Your task to perform on an android device: View the shopping cart on walmart. Search for razer blackwidow on walmart, select the first entry, and add it to the cart. Image 0: 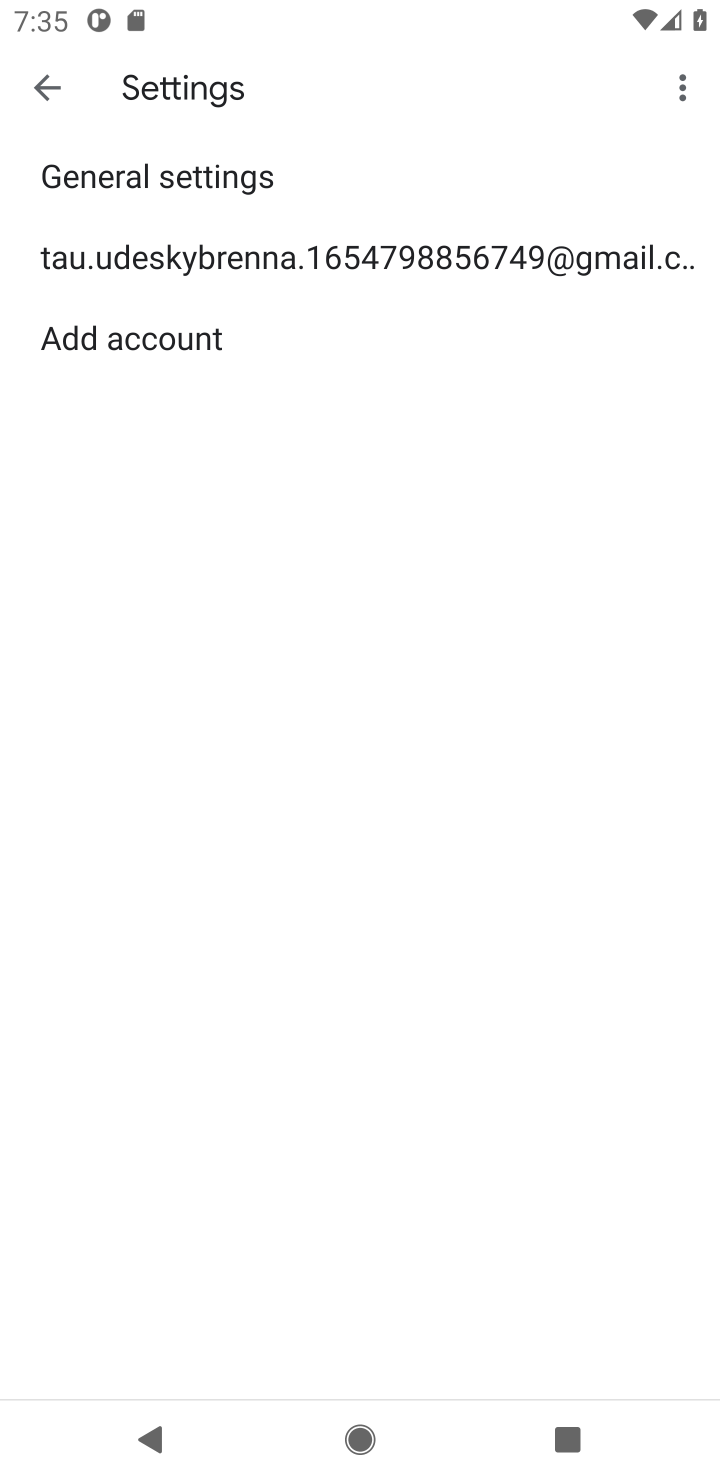
Step 0: press home button
Your task to perform on an android device: View the shopping cart on walmart. Search for razer blackwidow on walmart, select the first entry, and add it to the cart. Image 1: 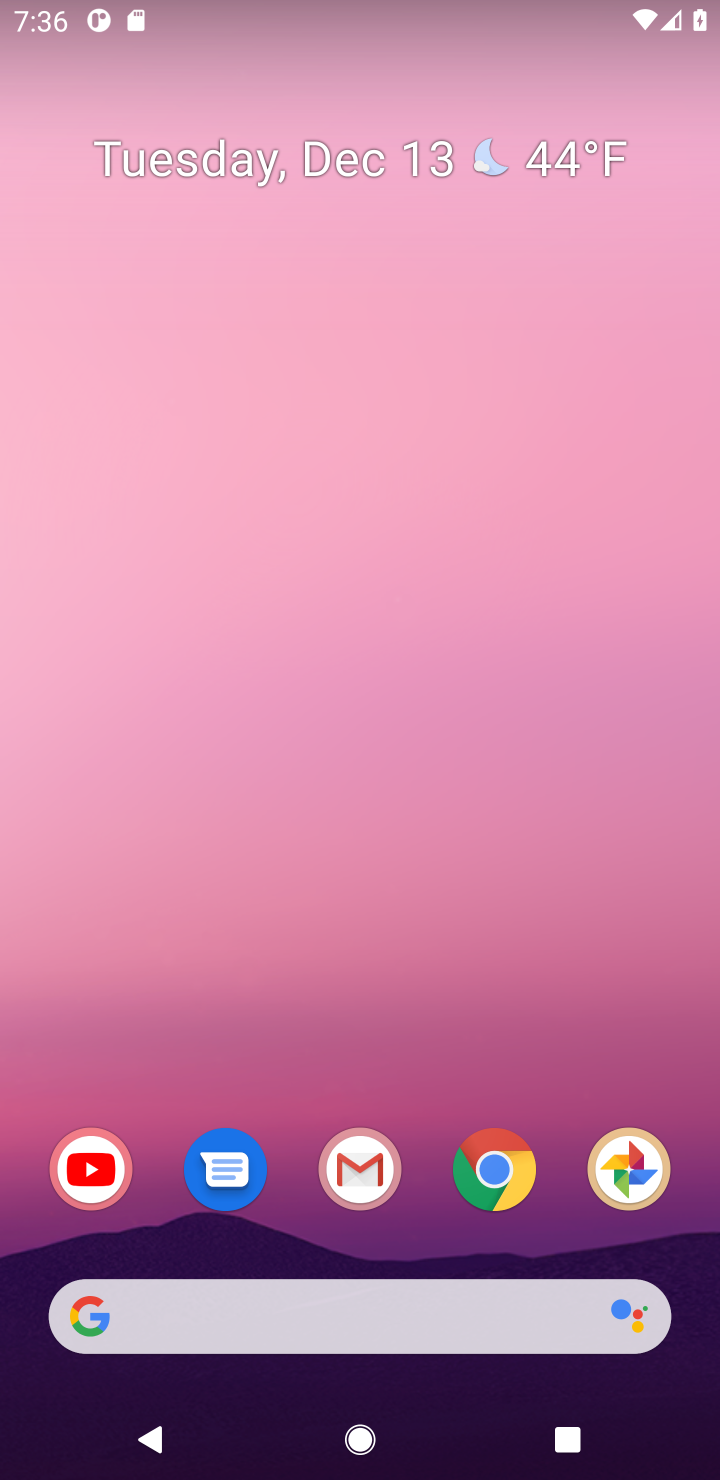
Step 1: click (478, 1200)
Your task to perform on an android device: View the shopping cart on walmart. Search for razer blackwidow on walmart, select the first entry, and add it to the cart. Image 2: 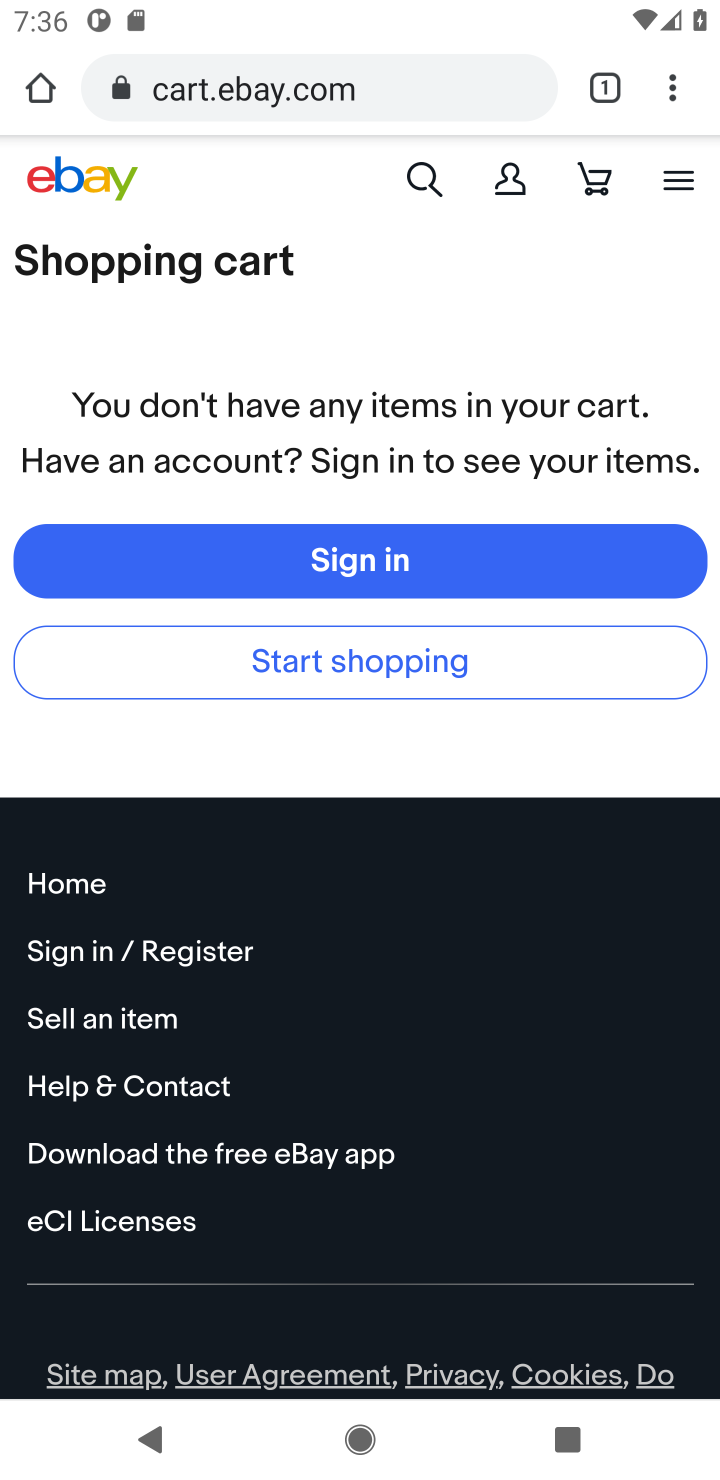
Step 2: click (370, 100)
Your task to perform on an android device: View the shopping cart on walmart. Search for razer blackwidow on walmart, select the first entry, and add it to the cart. Image 3: 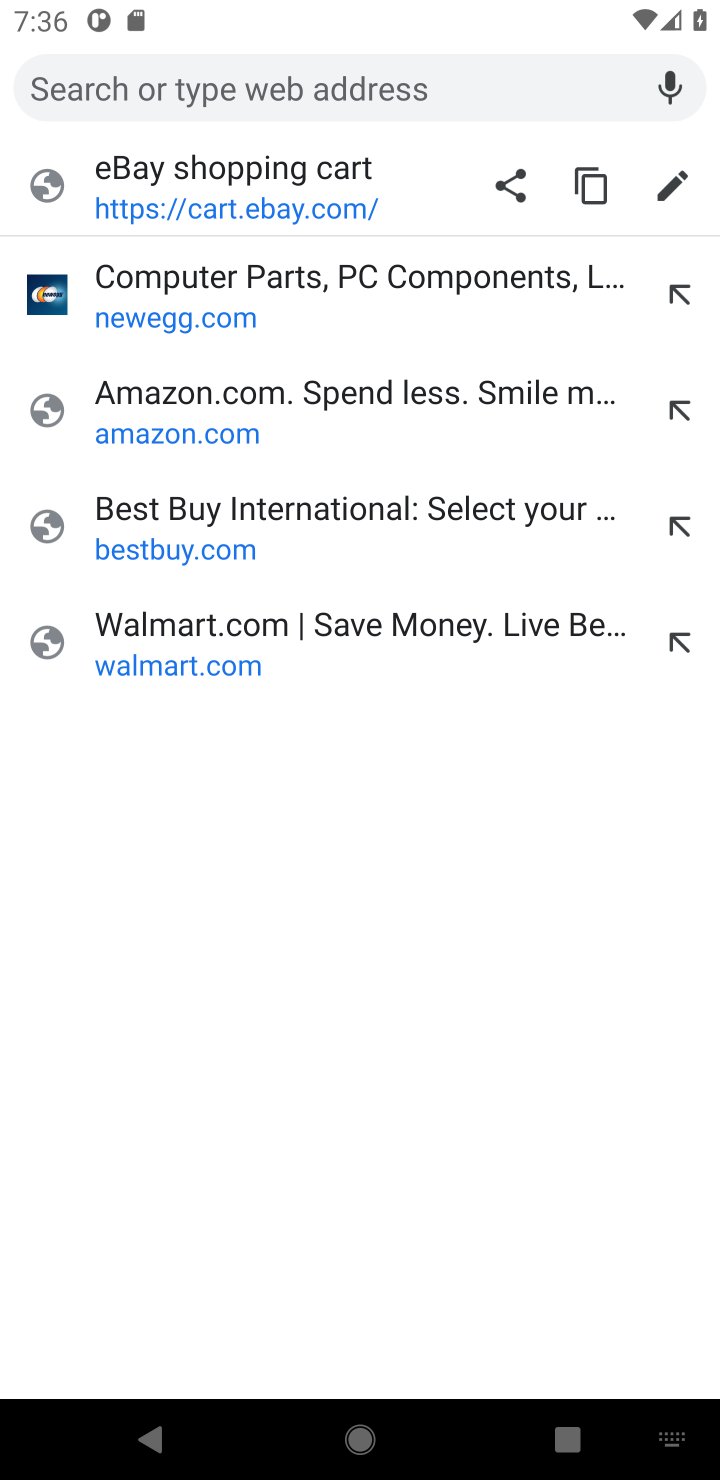
Step 3: type "walmart"
Your task to perform on an android device: View the shopping cart on walmart. Search for razer blackwidow on walmart, select the first entry, and add it to the cart. Image 4: 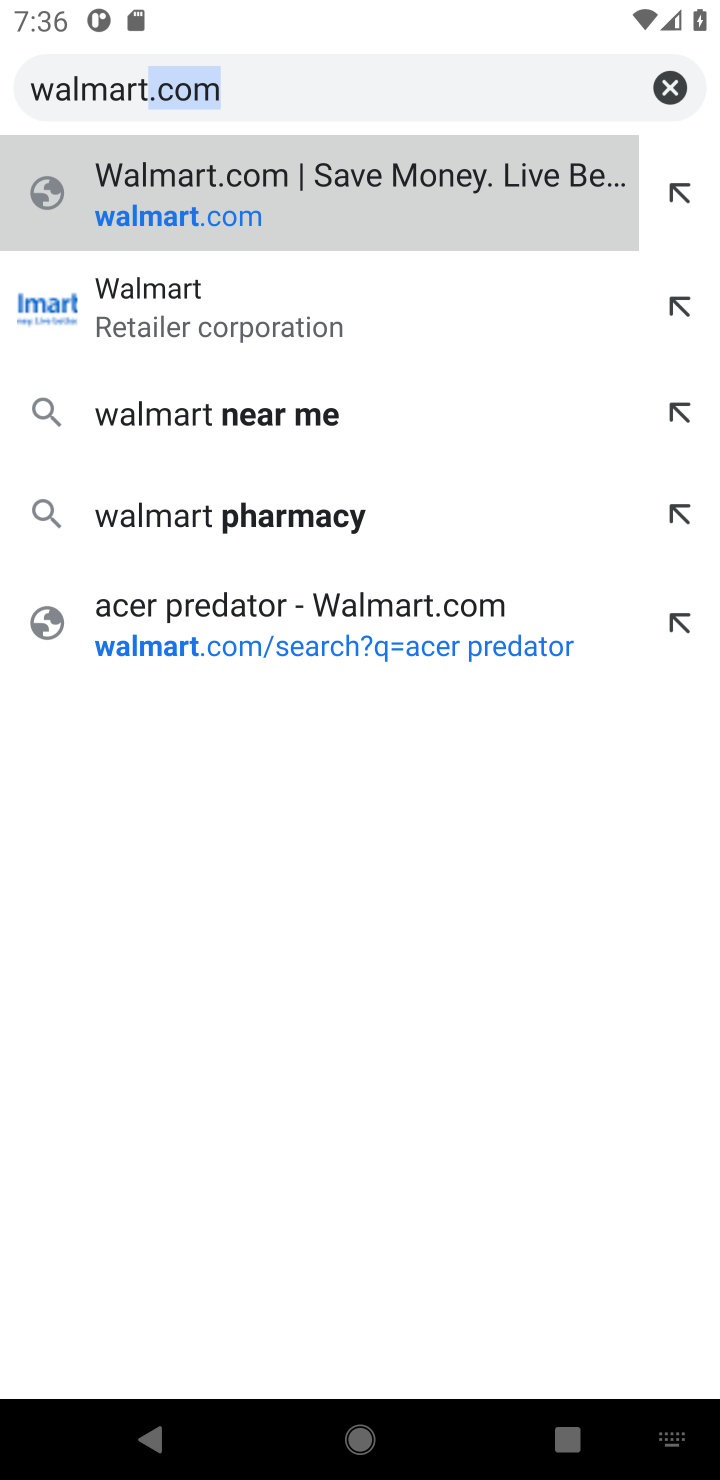
Step 4: click (384, 205)
Your task to perform on an android device: View the shopping cart on walmart. Search for razer blackwidow on walmart, select the first entry, and add it to the cart. Image 5: 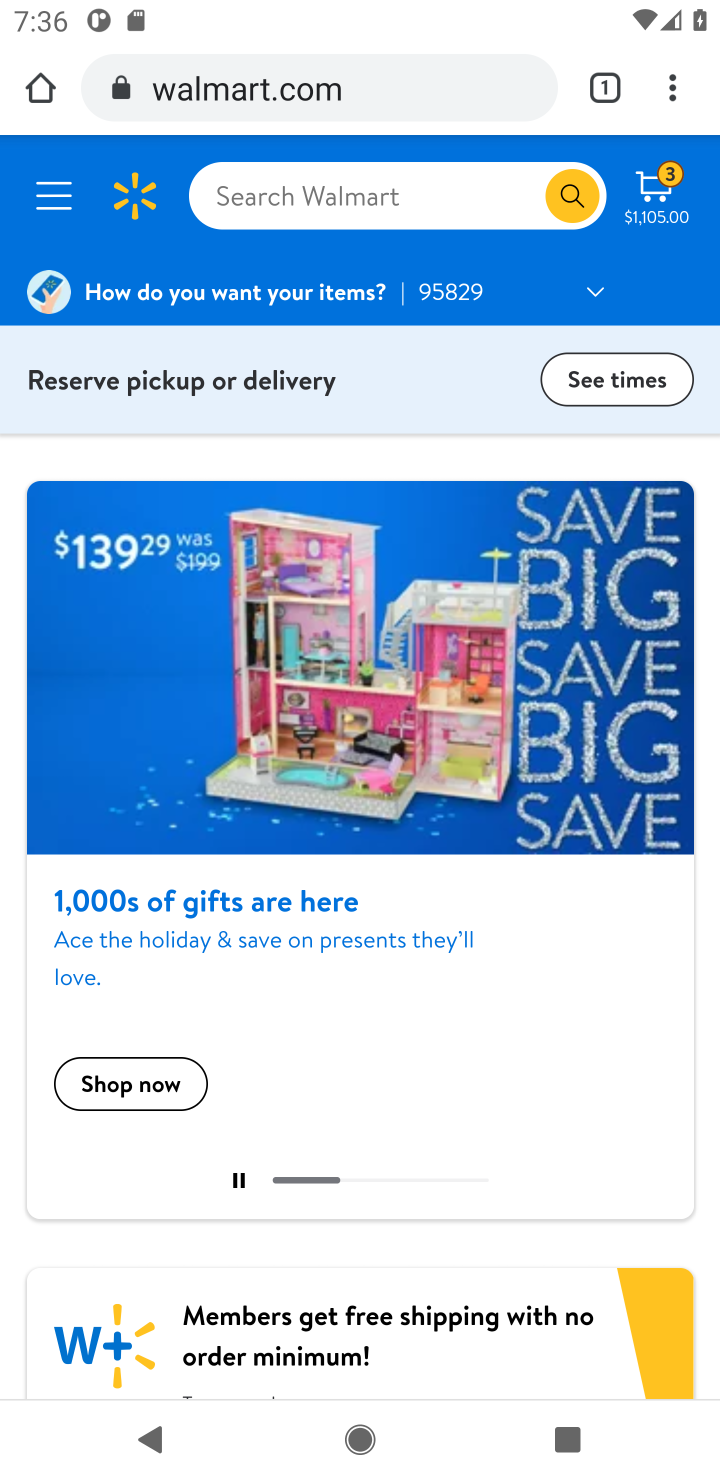
Step 5: click (384, 205)
Your task to perform on an android device: View the shopping cart on walmart. Search for razer blackwidow on walmart, select the first entry, and add it to the cart. Image 6: 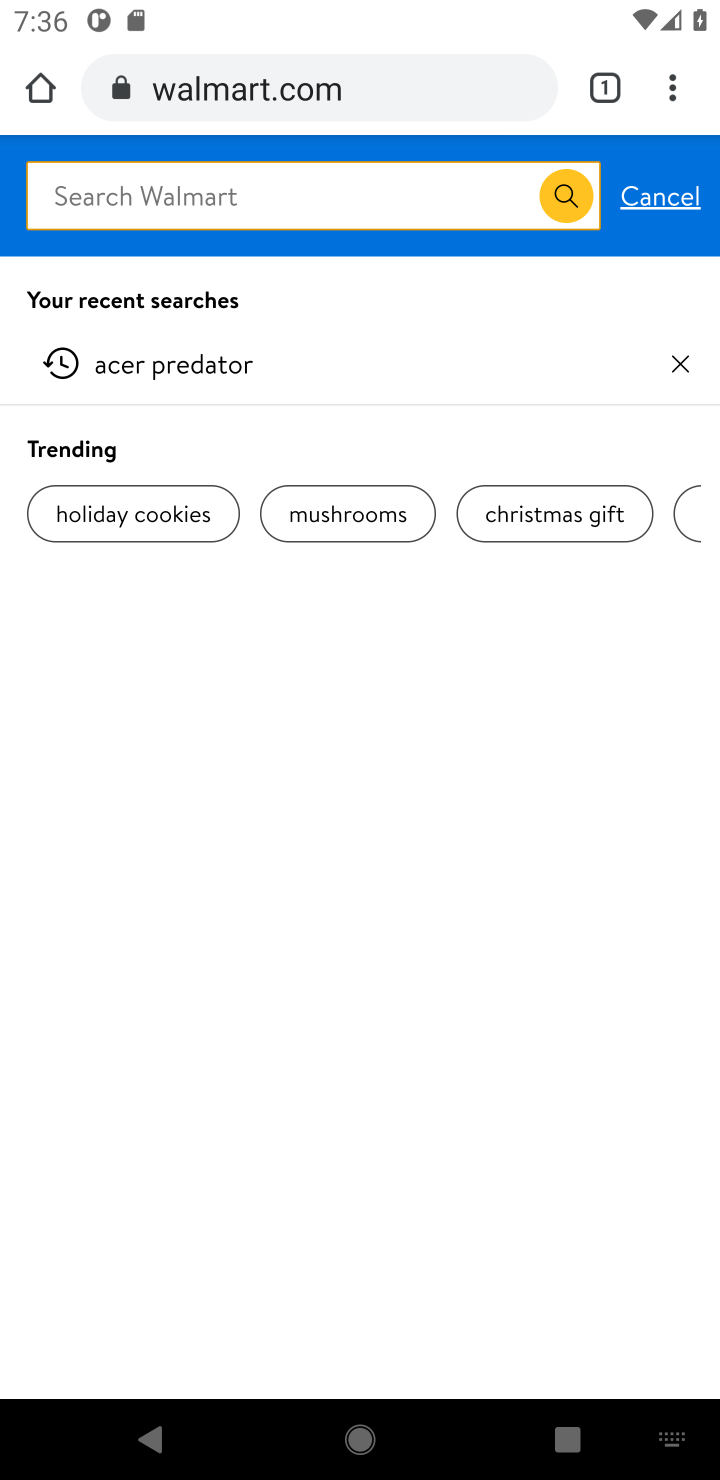
Step 6: type "razer blackwidow"
Your task to perform on an android device: View the shopping cart on walmart. Search for razer blackwidow on walmart, select the first entry, and add it to the cart. Image 7: 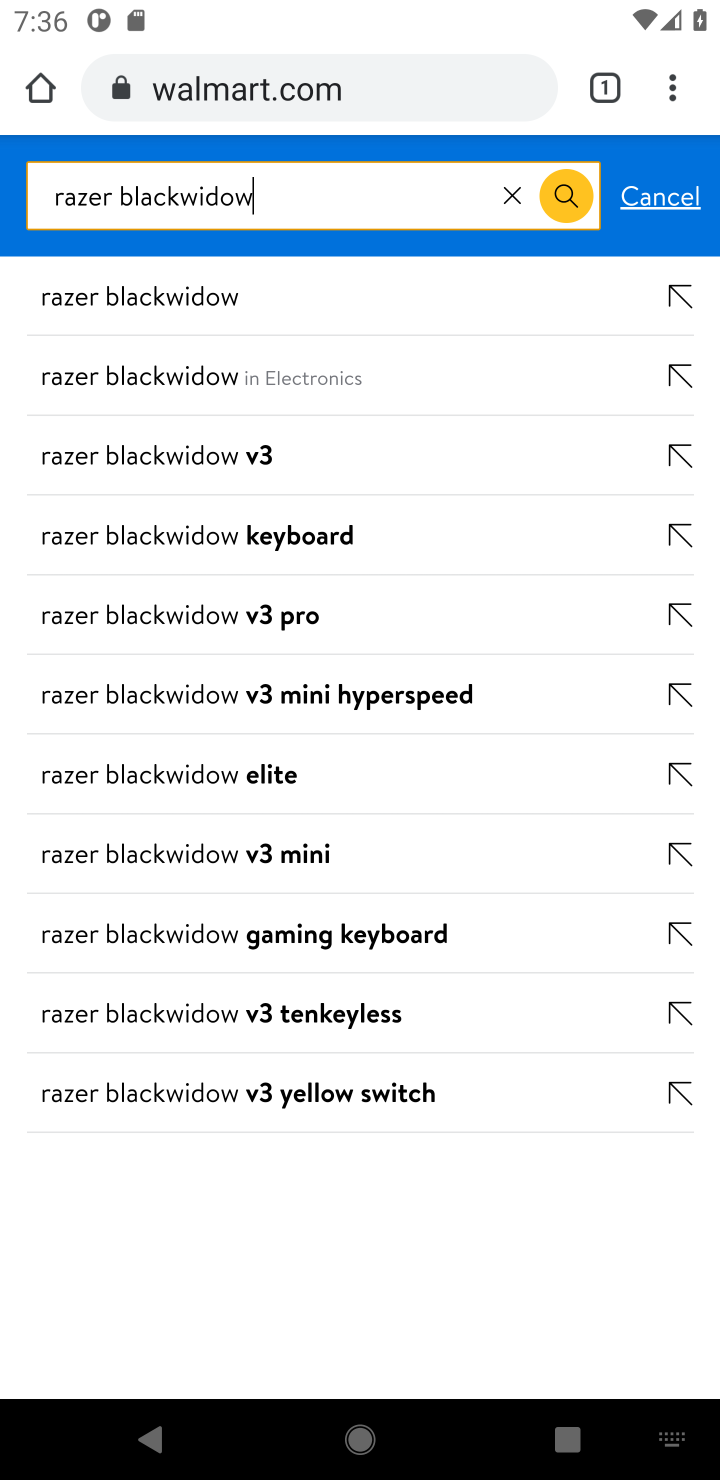
Step 7: click (136, 276)
Your task to perform on an android device: View the shopping cart on walmart. Search for razer blackwidow on walmart, select the first entry, and add it to the cart. Image 8: 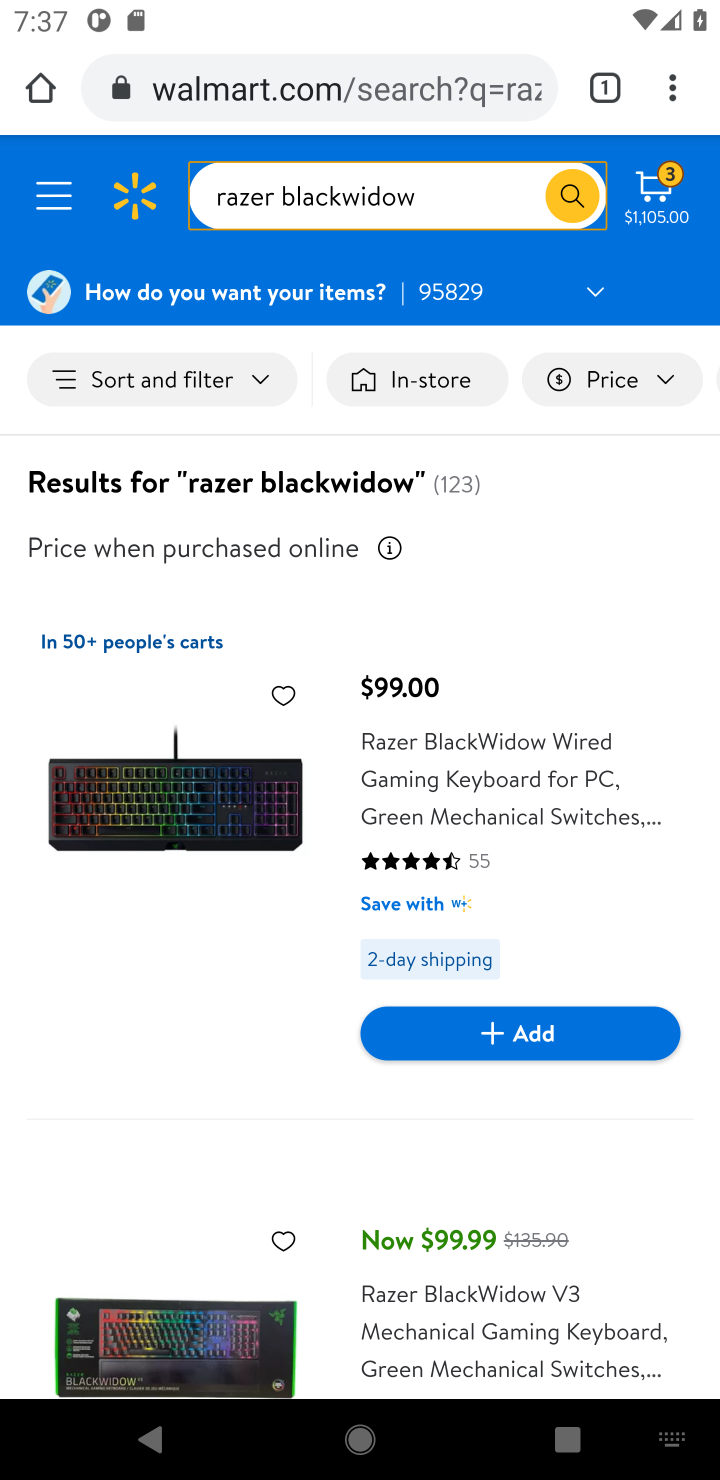
Step 8: click (471, 1002)
Your task to perform on an android device: View the shopping cart on walmart. Search for razer blackwidow on walmart, select the first entry, and add it to the cart. Image 9: 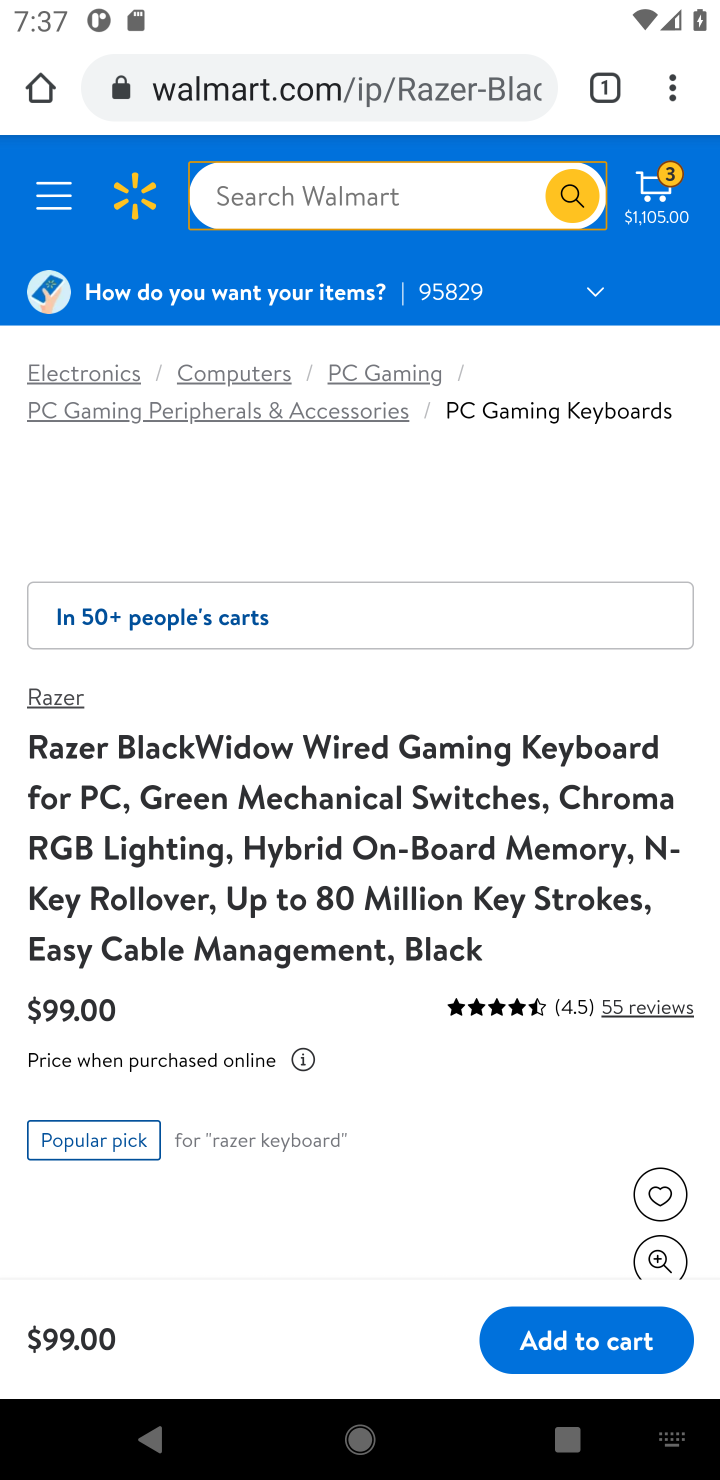
Step 9: click (646, 1328)
Your task to perform on an android device: View the shopping cart on walmart. Search for razer blackwidow on walmart, select the first entry, and add it to the cart. Image 10: 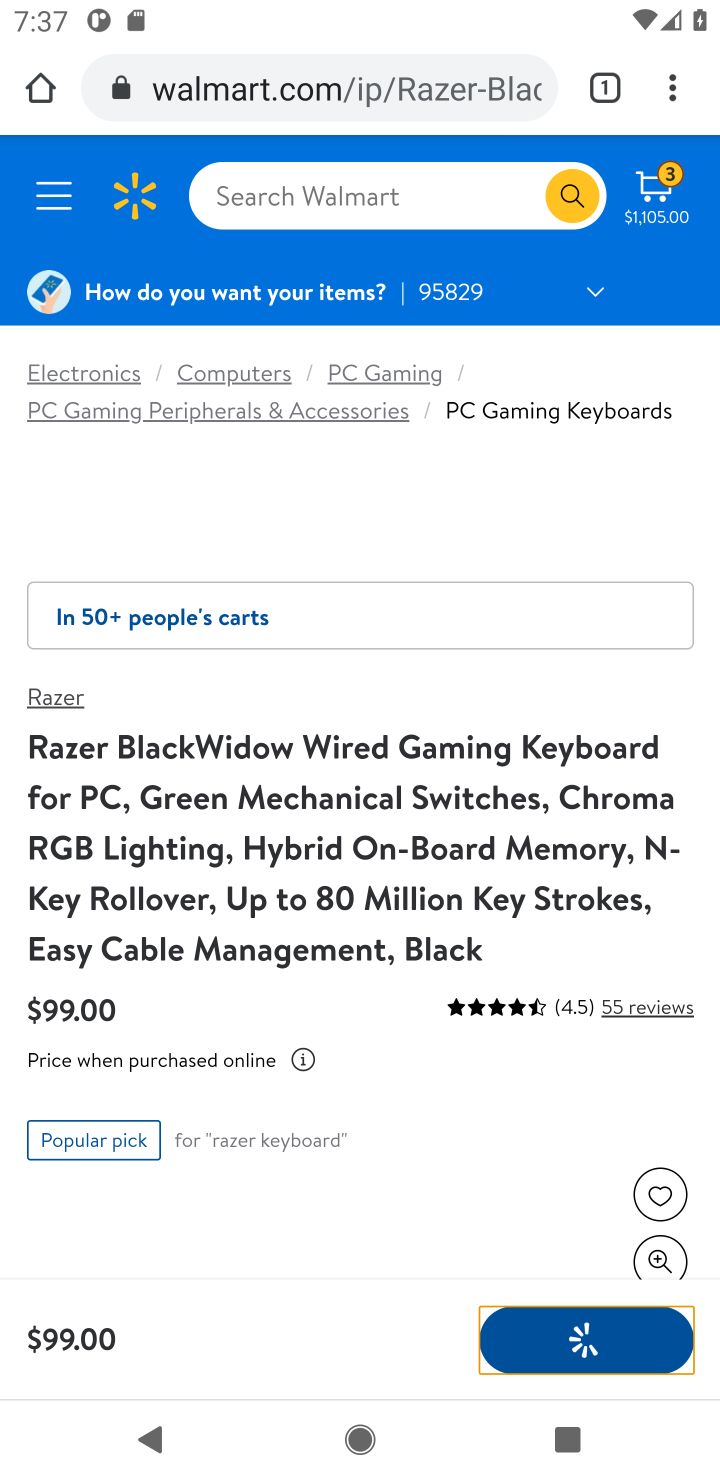
Step 10: task complete